Your task to perform on an android device: turn off location Image 0: 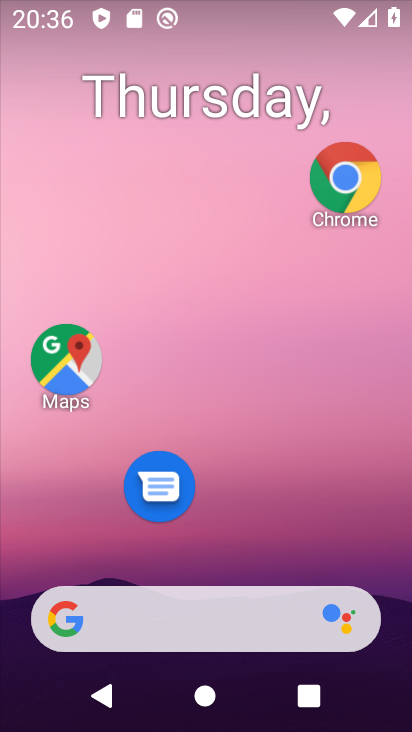
Step 0: drag from (190, 584) to (45, 60)
Your task to perform on an android device: turn off location Image 1: 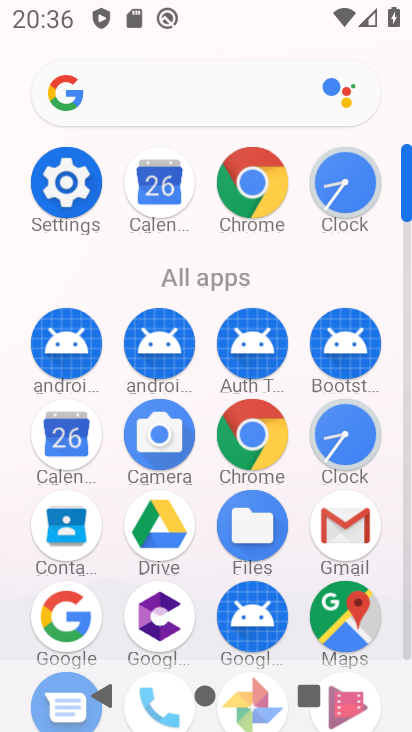
Step 1: click (80, 176)
Your task to perform on an android device: turn off location Image 2: 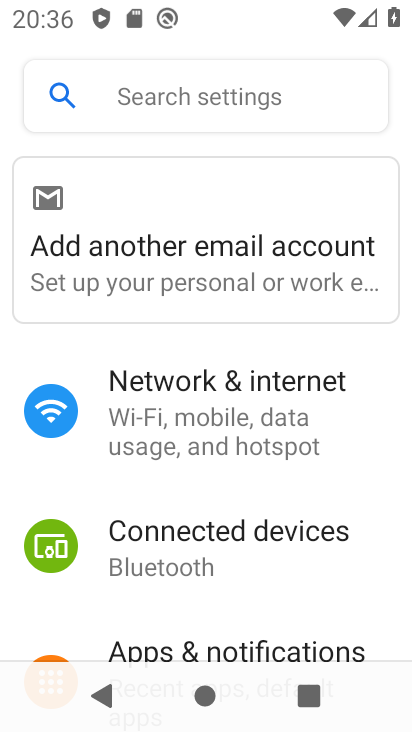
Step 2: drag from (241, 565) to (112, 28)
Your task to perform on an android device: turn off location Image 3: 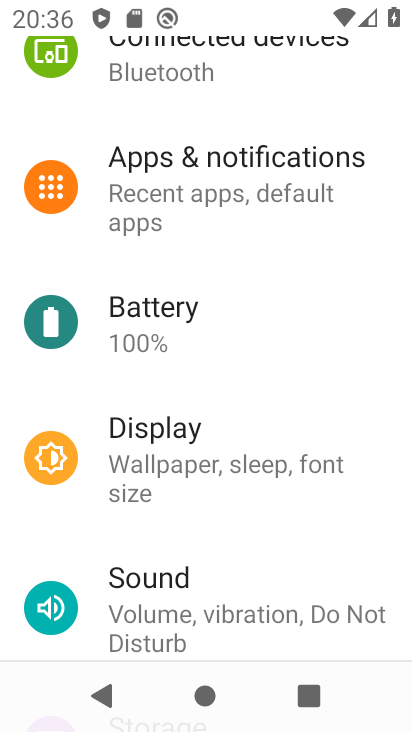
Step 3: drag from (236, 499) to (156, 17)
Your task to perform on an android device: turn off location Image 4: 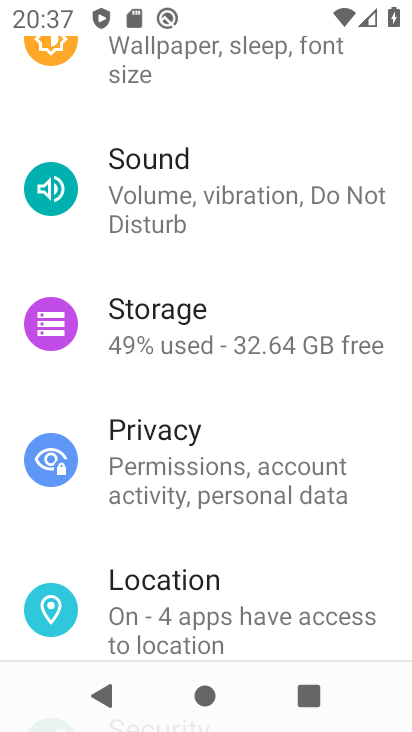
Step 4: click (179, 628)
Your task to perform on an android device: turn off location Image 5: 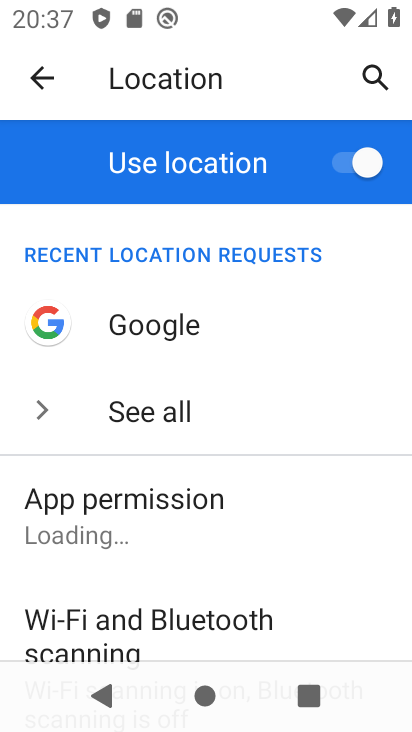
Step 5: click (359, 158)
Your task to perform on an android device: turn off location Image 6: 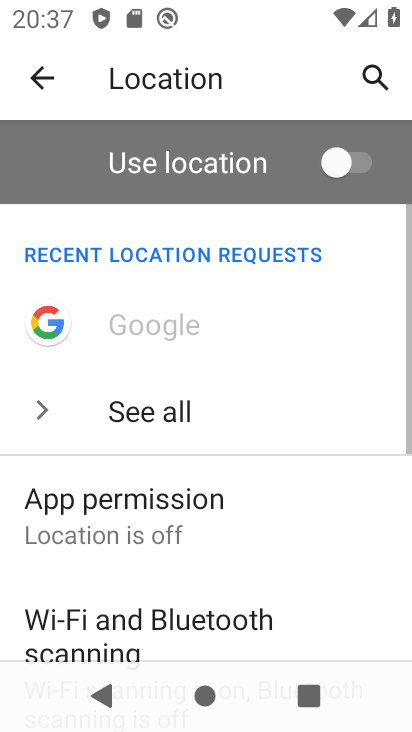
Step 6: task complete